Your task to perform on an android device: Find coffee shops on Maps Image 0: 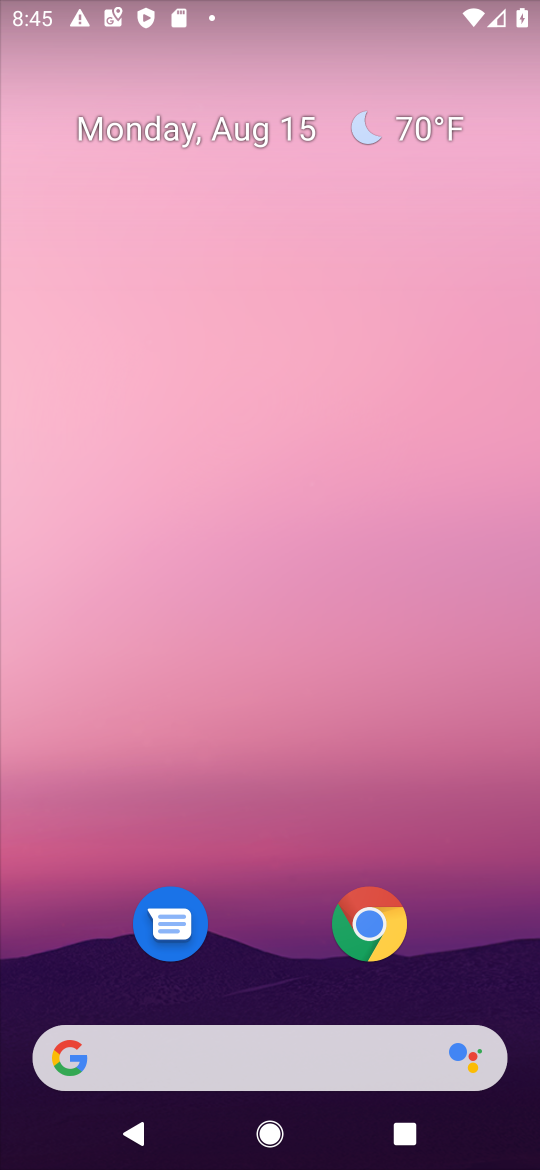
Step 0: drag from (490, 952) to (485, 1)
Your task to perform on an android device: Find coffee shops on Maps Image 1: 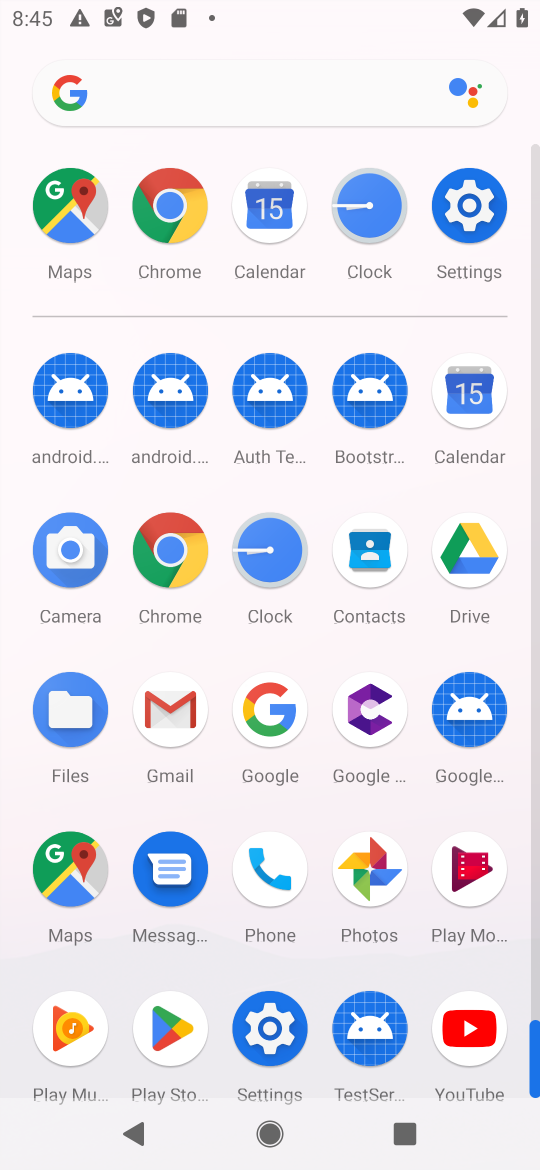
Step 1: click (71, 870)
Your task to perform on an android device: Find coffee shops on Maps Image 2: 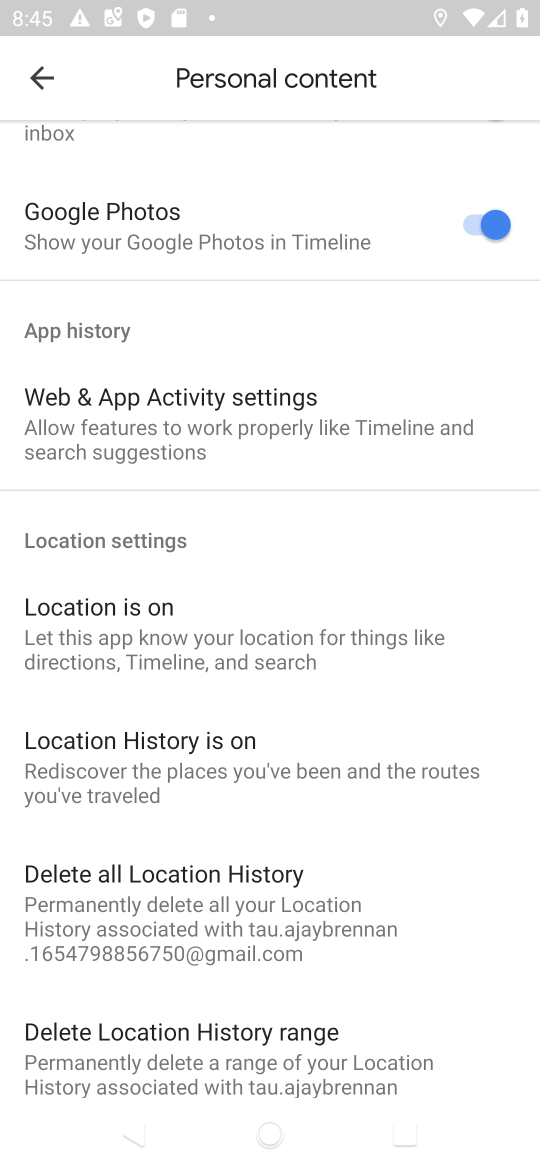
Step 2: drag from (280, 870) to (346, 975)
Your task to perform on an android device: Find coffee shops on Maps Image 3: 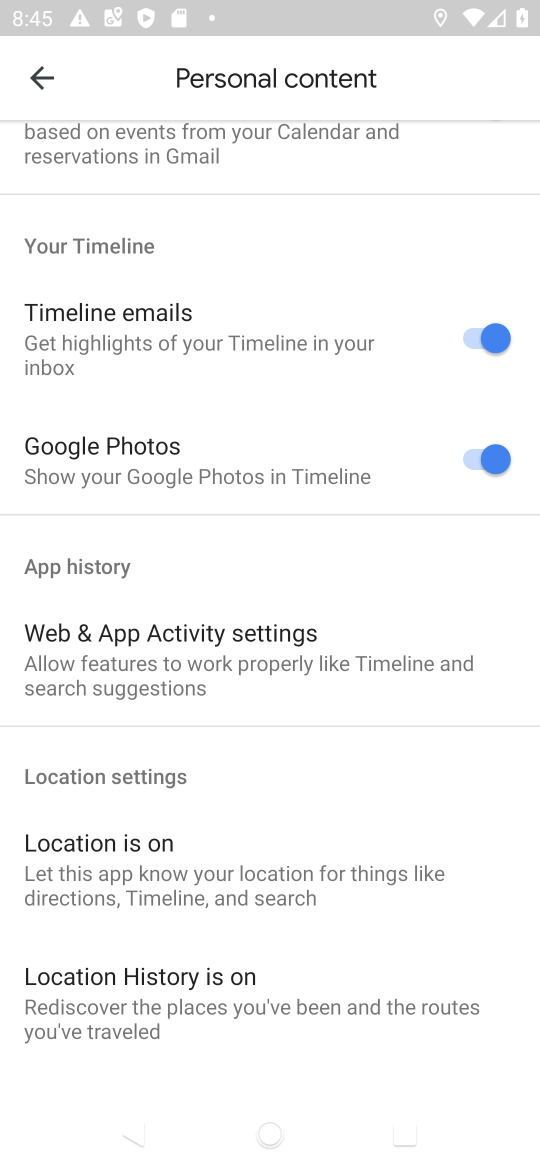
Step 3: press back button
Your task to perform on an android device: Find coffee shops on Maps Image 4: 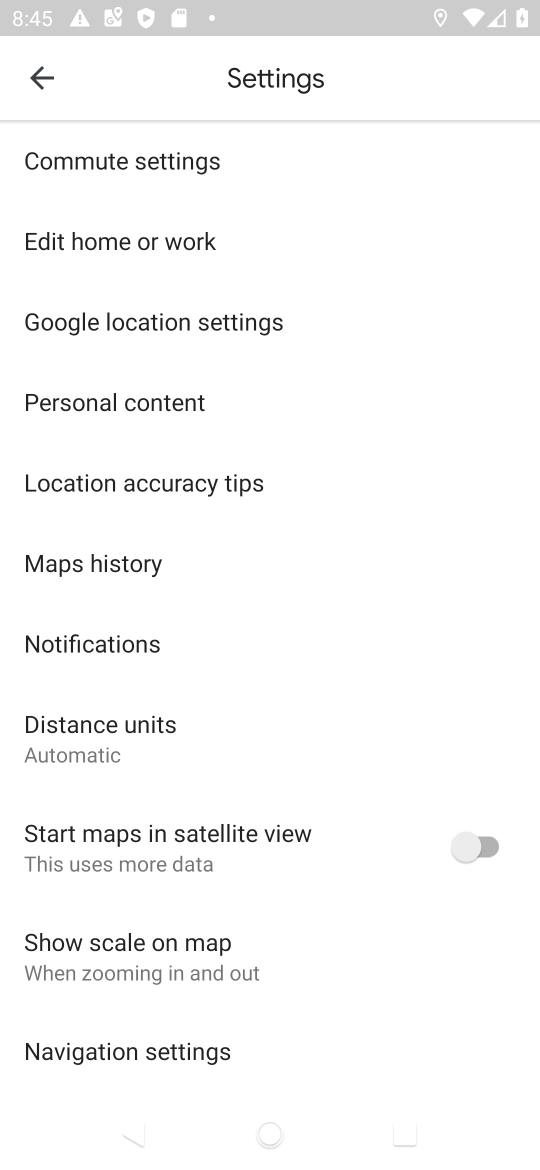
Step 4: press back button
Your task to perform on an android device: Find coffee shops on Maps Image 5: 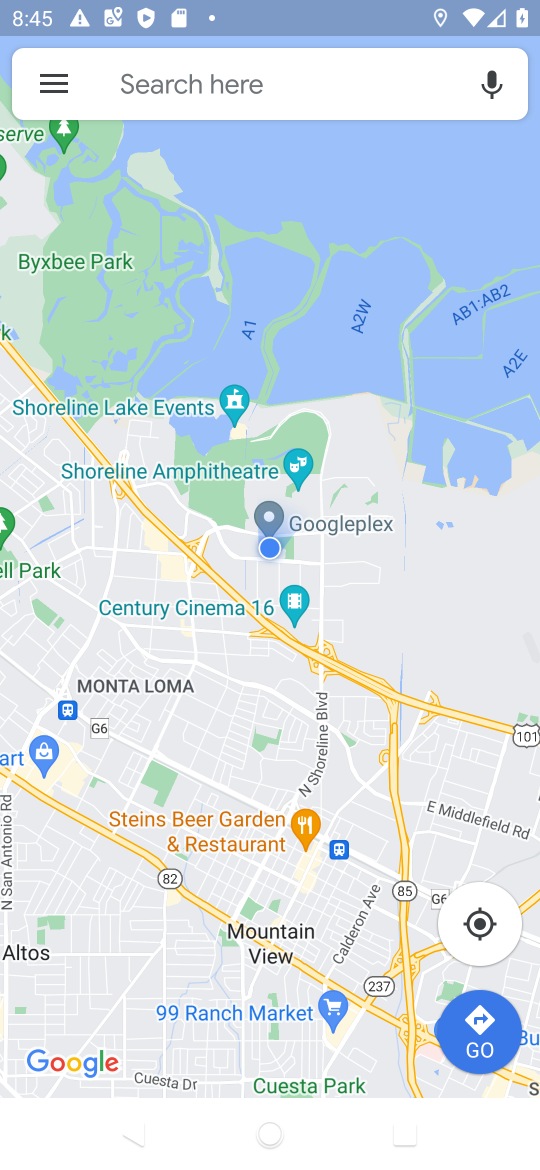
Step 5: click (177, 83)
Your task to perform on an android device: Find coffee shops on Maps Image 6: 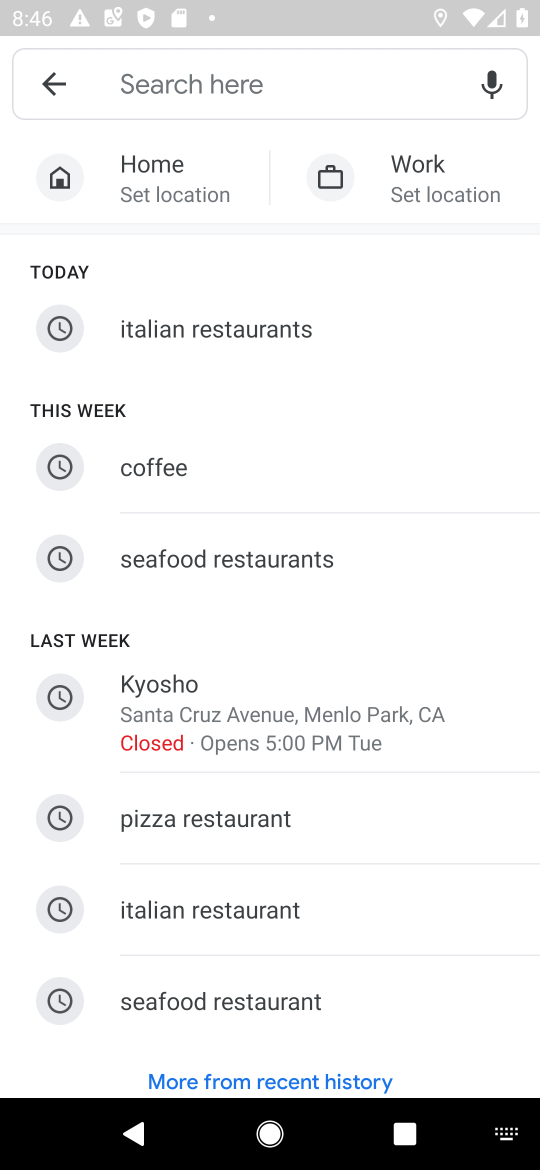
Step 6: type "coffee shops"
Your task to perform on an android device: Find coffee shops on Maps Image 7: 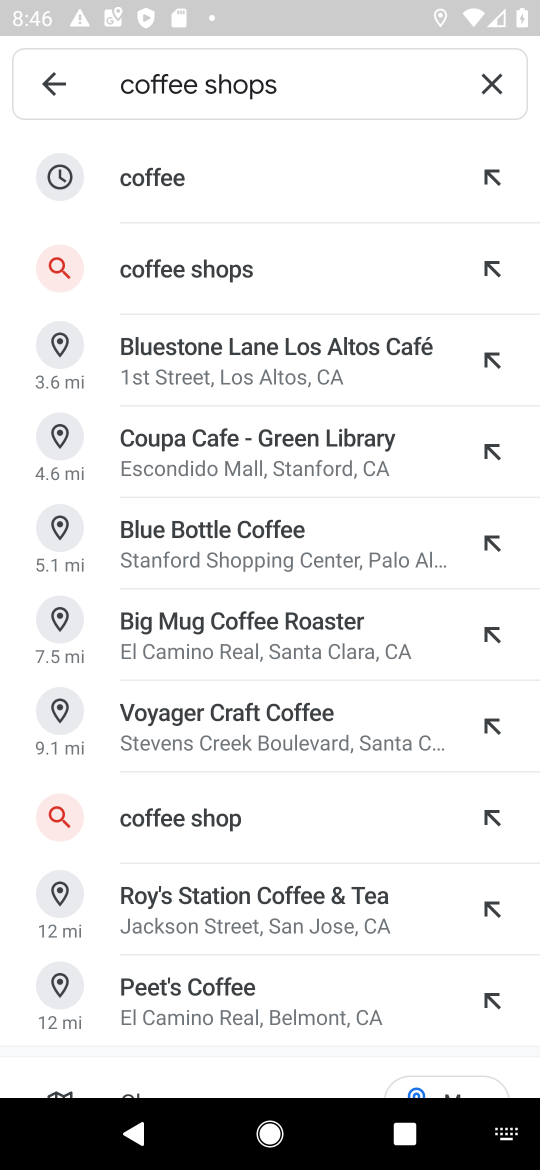
Step 7: click (210, 273)
Your task to perform on an android device: Find coffee shops on Maps Image 8: 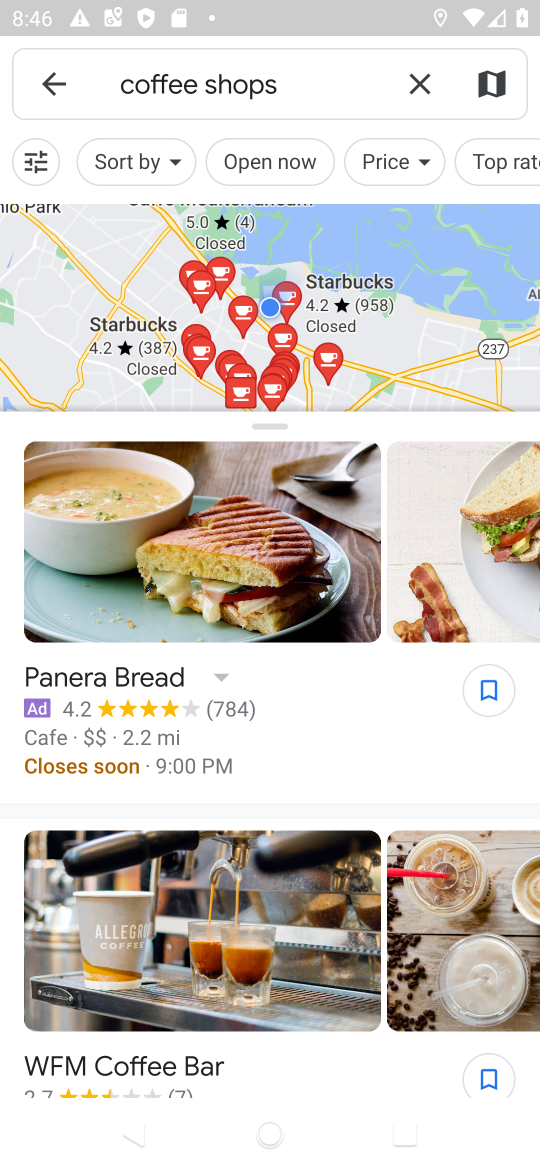
Step 8: task complete